Your task to perform on an android device: turn off picture-in-picture Image 0: 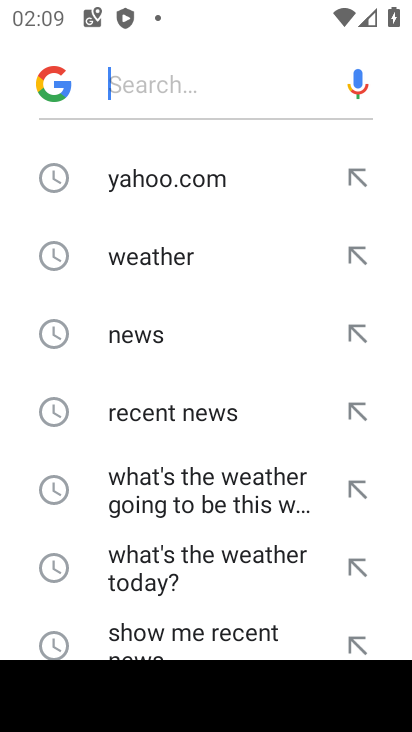
Step 0: press back button
Your task to perform on an android device: turn off picture-in-picture Image 1: 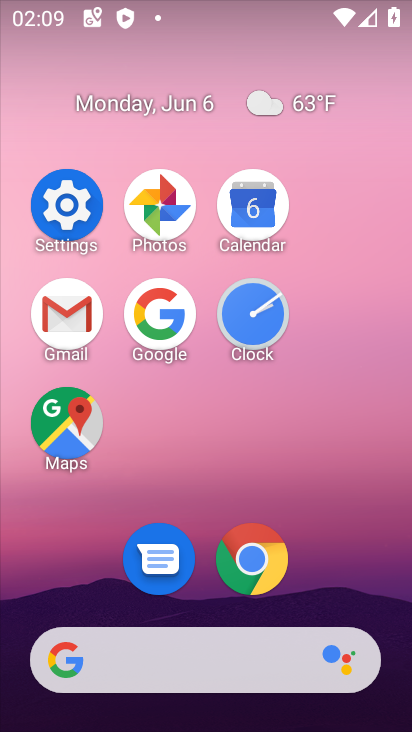
Step 1: drag from (252, 565) to (315, 565)
Your task to perform on an android device: turn off picture-in-picture Image 2: 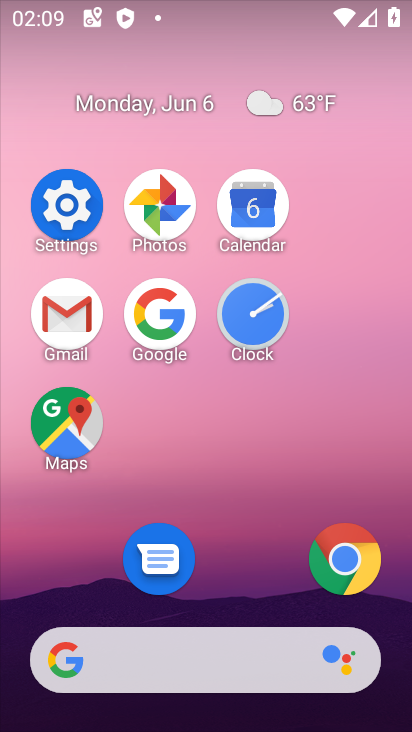
Step 2: click (336, 568)
Your task to perform on an android device: turn off picture-in-picture Image 3: 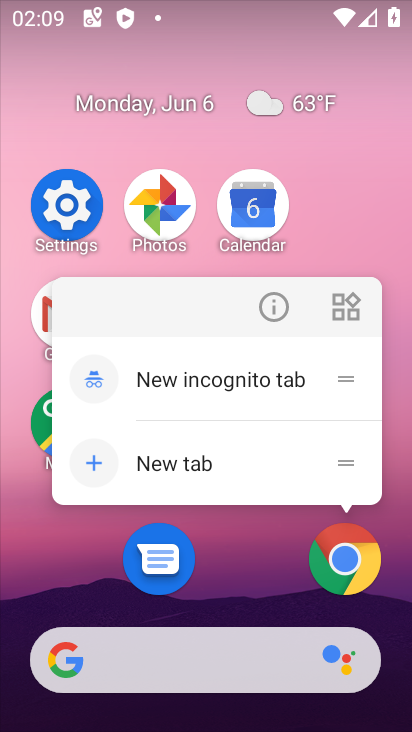
Step 3: click (271, 311)
Your task to perform on an android device: turn off picture-in-picture Image 4: 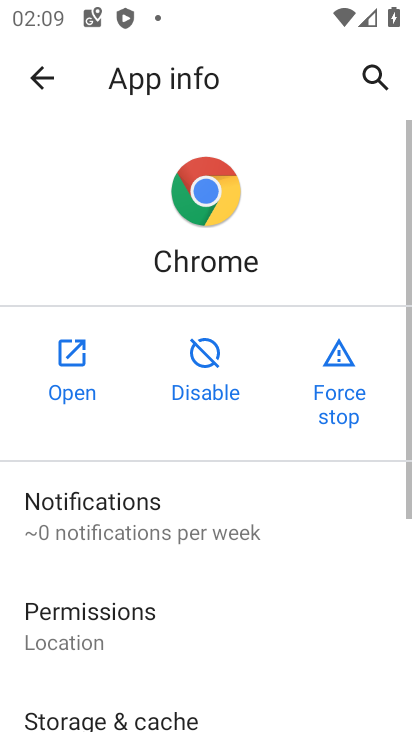
Step 4: drag from (273, 576) to (329, 249)
Your task to perform on an android device: turn off picture-in-picture Image 5: 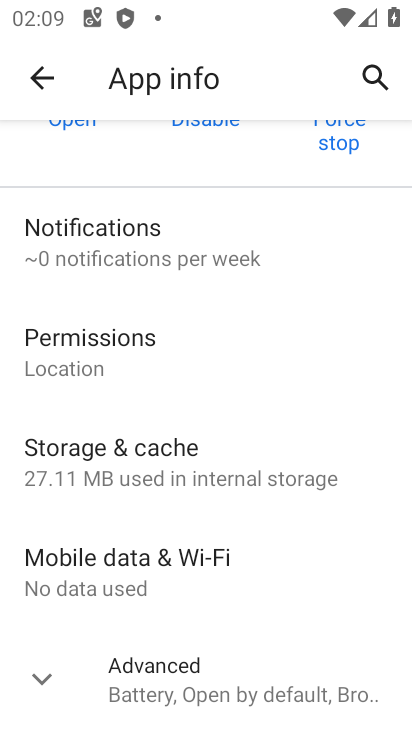
Step 5: click (252, 665)
Your task to perform on an android device: turn off picture-in-picture Image 6: 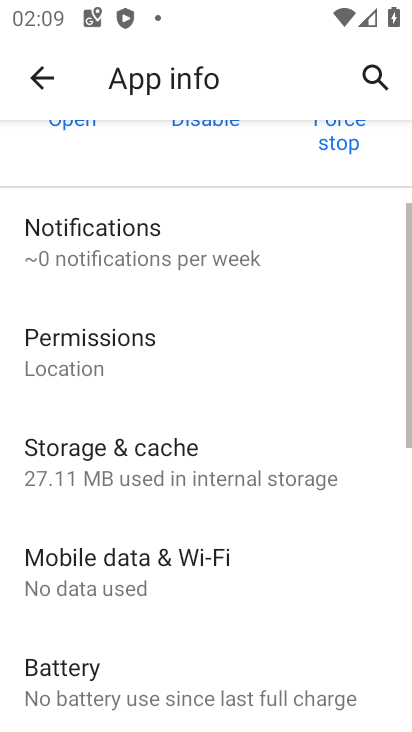
Step 6: drag from (252, 665) to (320, 318)
Your task to perform on an android device: turn off picture-in-picture Image 7: 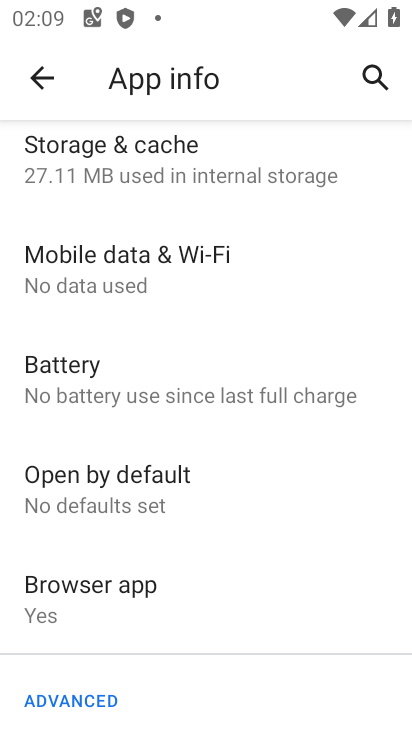
Step 7: drag from (244, 572) to (302, 278)
Your task to perform on an android device: turn off picture-in-picture Image 8: 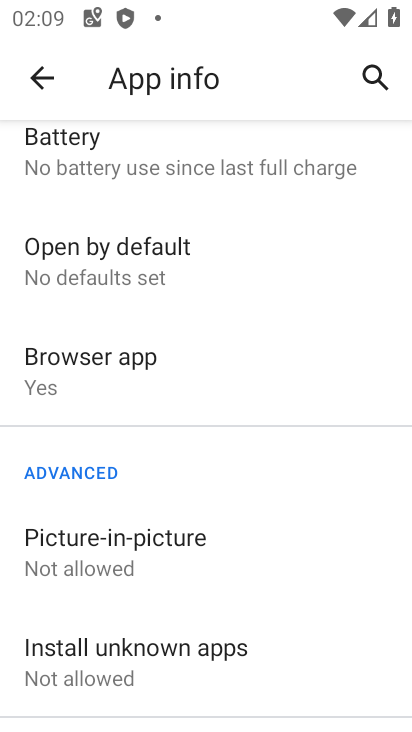
Step 8: click (223, 573)
Your task to perform on an android device: turn off picture-in-picture Image 9: 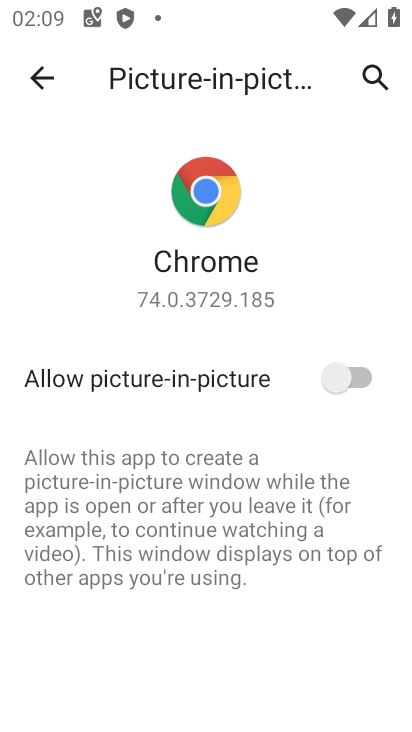
Step 9: task complete